Your task to perform on an android device: Show me recent news Image 0: 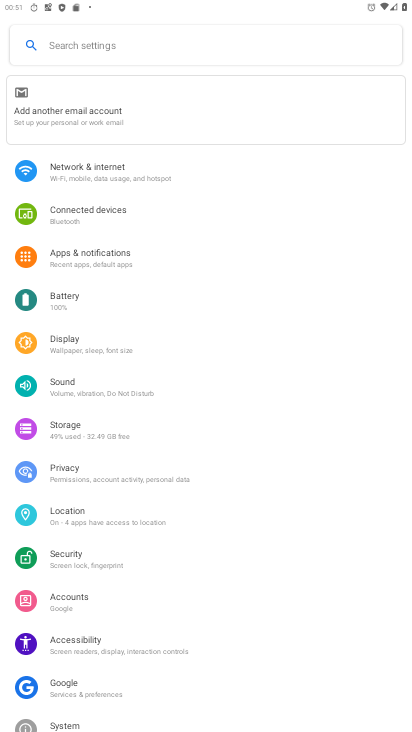
Step 0: press home button
Your task to perform on an android device: Show me recent news Image 1: 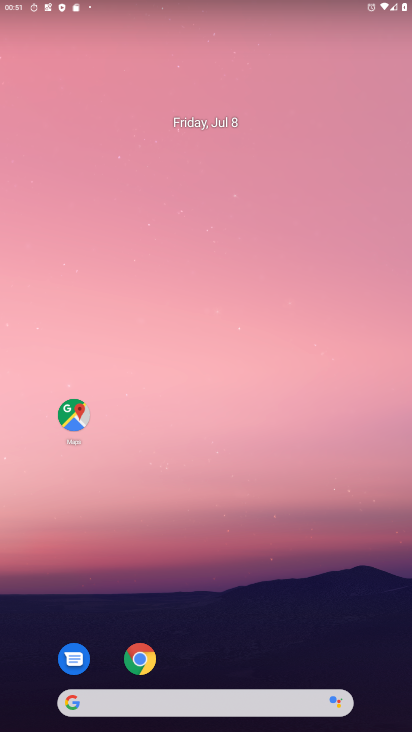
Step 1: click (175, 701)
Your task to perform on an android device: Show me recent news Image 2: 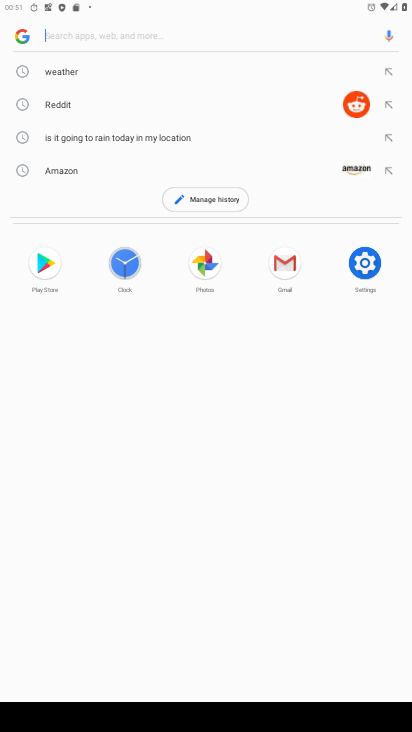
Step 2: click (19, 33)
Your task to perform on an android device: Show me recent news Image 3: 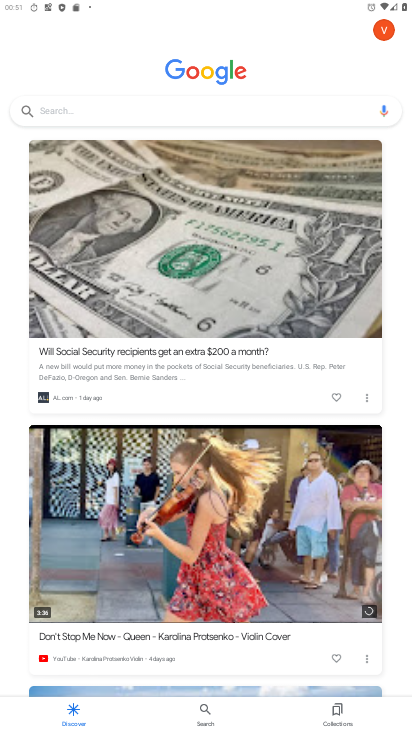
Step 3: task complete